Your task to perform on an android device: Check the news Image 0: 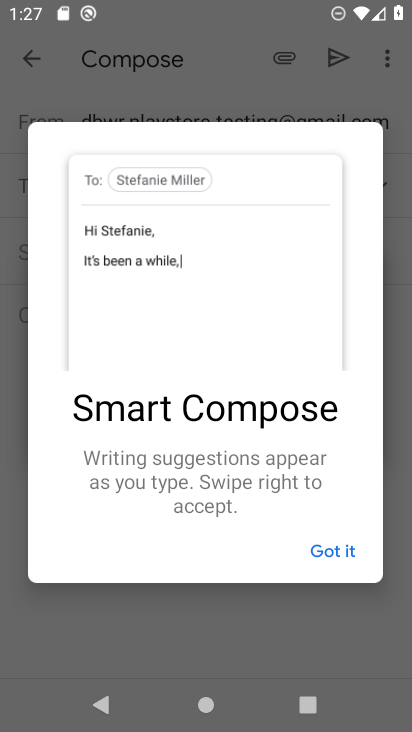
Step 0: press home button
Your task to perform on an android device: Check the news Image 1: 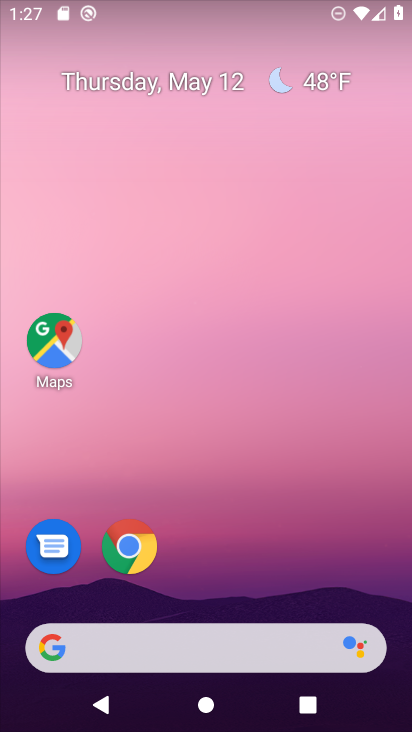
Step 1: drag from (202, 674) to (350, 310)
Your task to perform on an android device: Check the news Image 2: 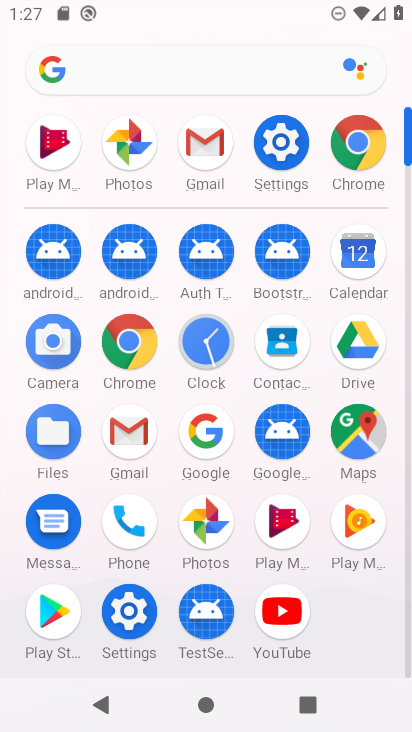
Step 2: click (127, 78)
Your task to perform on an android device: Check the news Image 3: 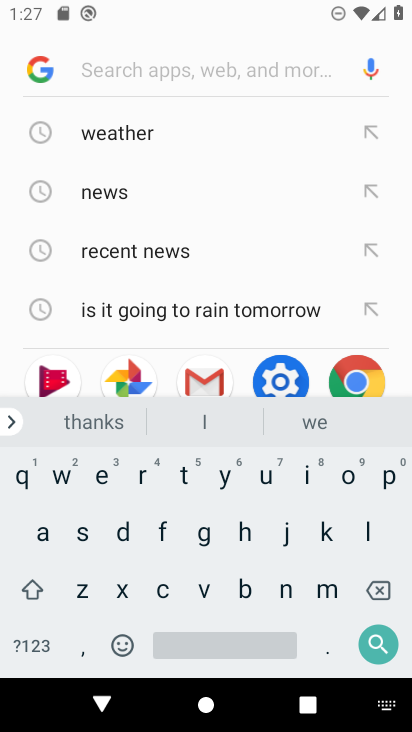
Step 3: click (113, 201)
Your task to perform on an android device: Check the news Image 4: 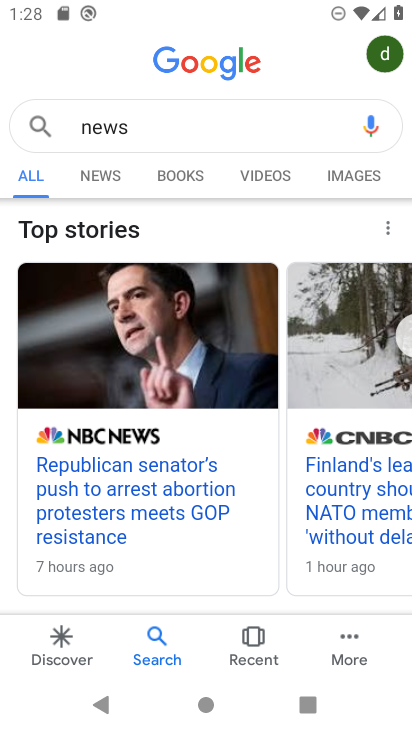
Step 4: task complete